Your task to perform on an android device: snooze an email in the gmail app Image 0: 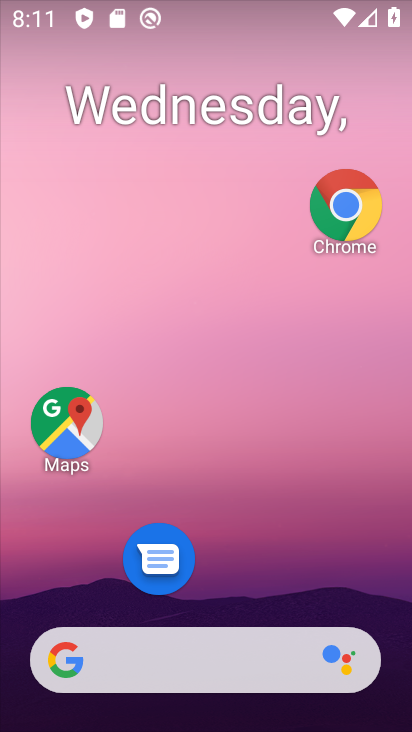
Step 0: click (409, 205)
Your task to perform on an android device: snooze an email in the gmail app Image 1: 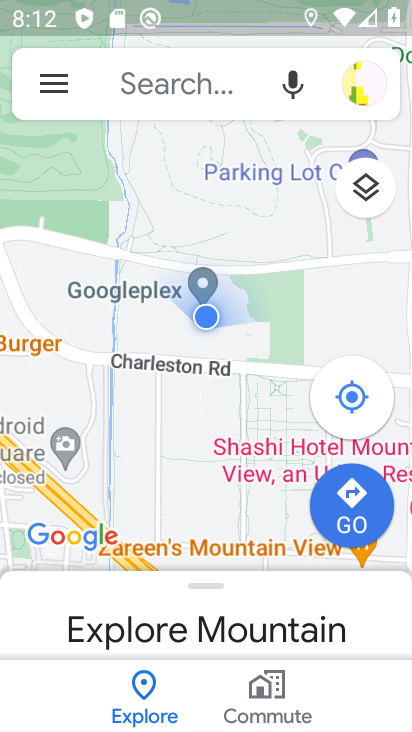
Step 1: press home button
Your task to perform on an android device: snooze an email in the gmail app Image 2: 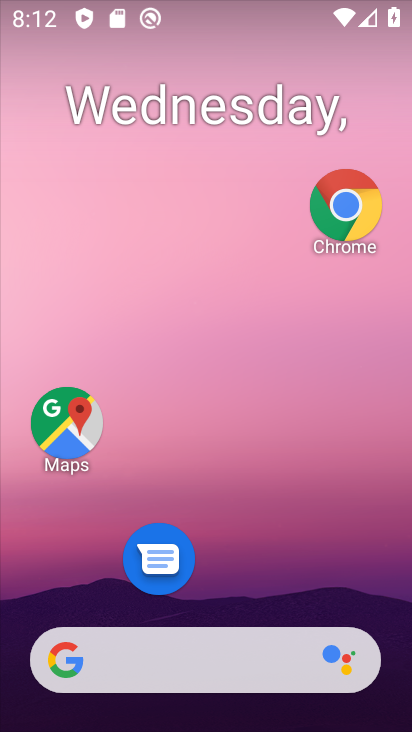
Step 2: drag from (214, 572) to (249, 156)
Your task to perform on an android device: snooze an email in the gmail app Image 3: 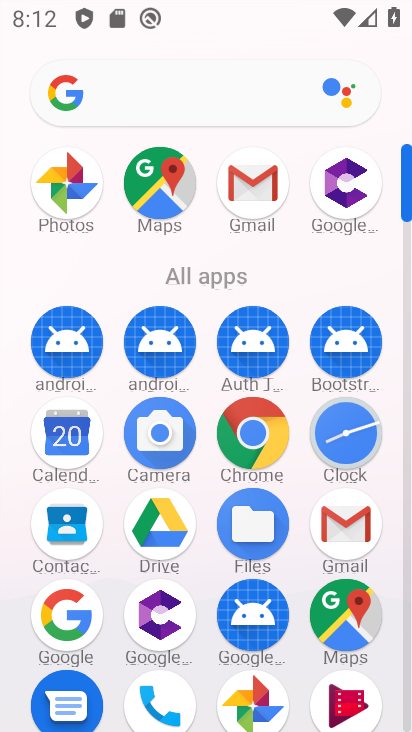
Step 3: click (359, 527)
Your task to perform on an android device: snooze an email in the gmail app Image 4: 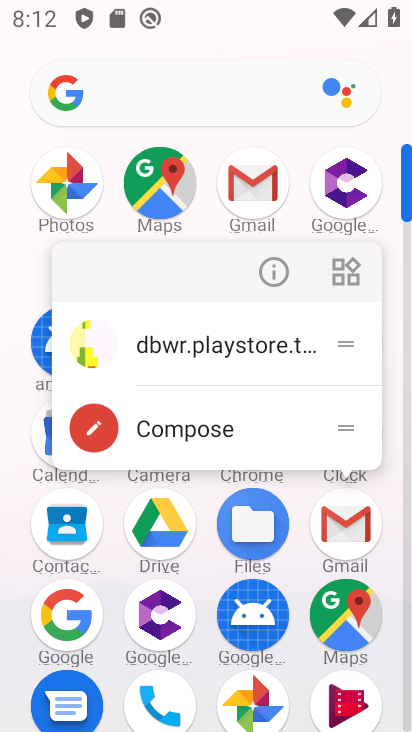
Step 4: click (288, 265)
Your task to perform on an android device: snooze an email in the gmail app Image 5: 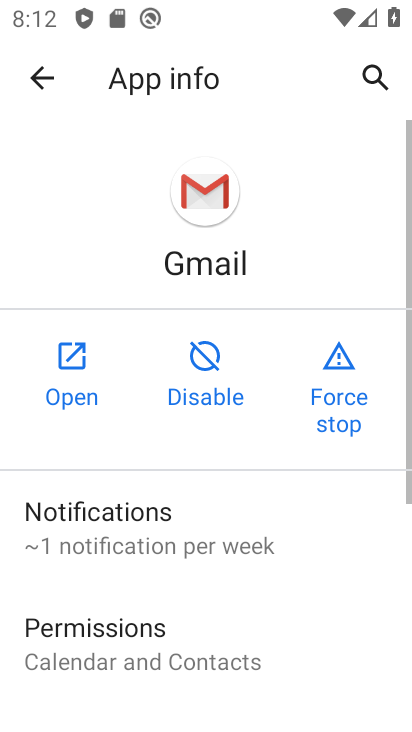
Step 5: click (77, 365)
Your task to perform on an android device: snooze an email in the gmail app Image 6: 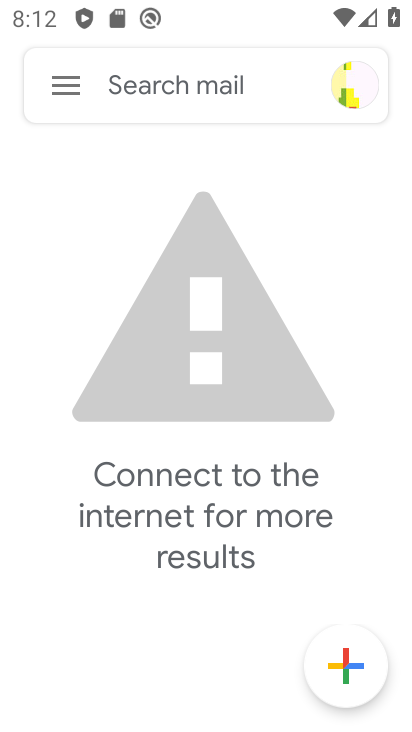
Step 6: click (60, 85)
Your task to perform on an android device: snooze an email in the gmail app Image 7: 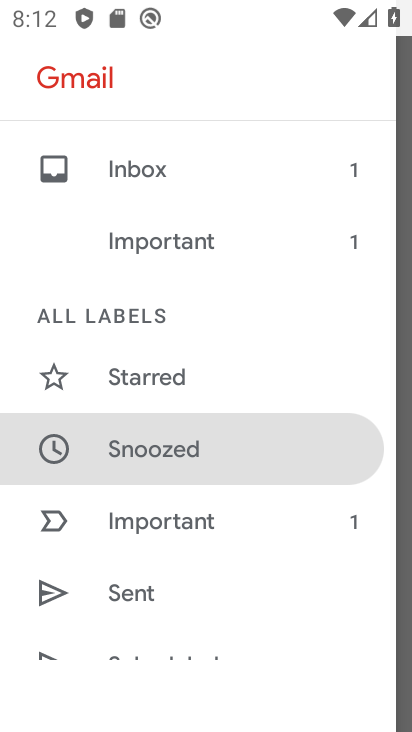
Step 7: task complete